Your task to perform on an android device: manage bookmarks in the chrome app Image 0: 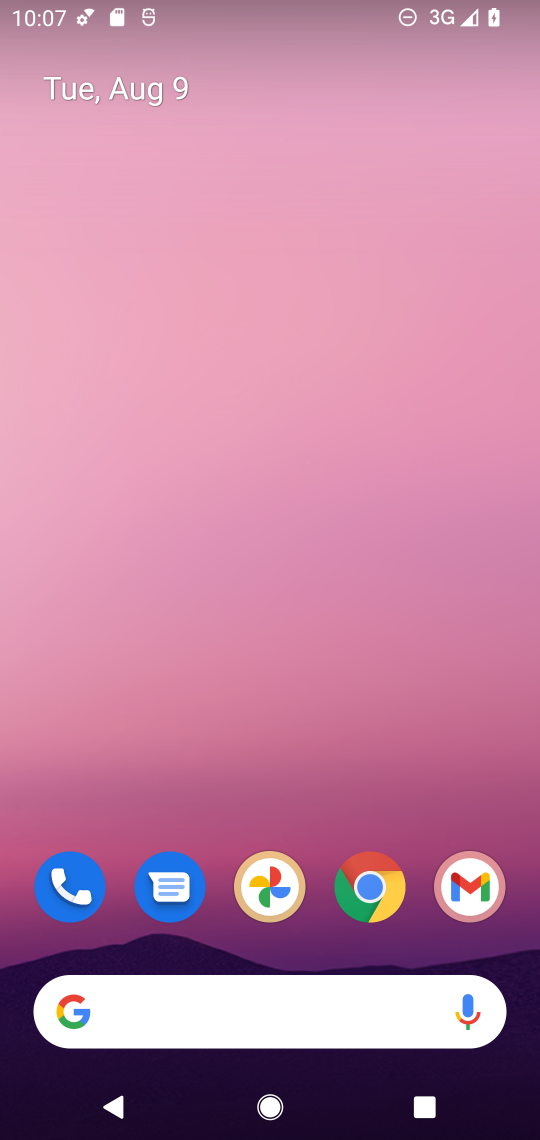
Step 0: click (386, 874)
Your task to perform on an android device: manage bookmarks in the chrome app Image 1: 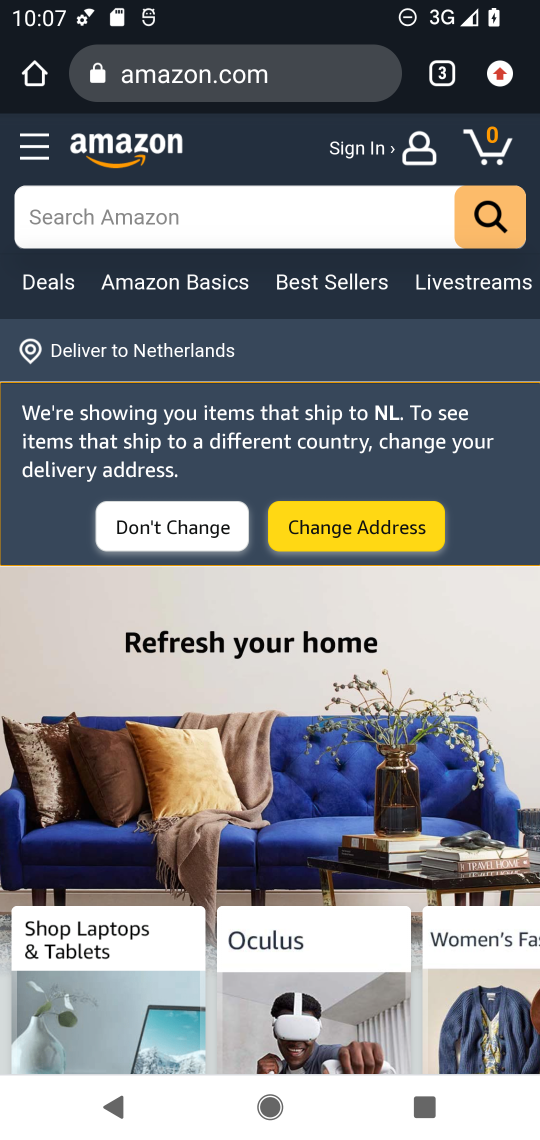
Step 1: click (503, 81)
Your task to perform on an android device: manage bookmarks in the chrome app Image 2: 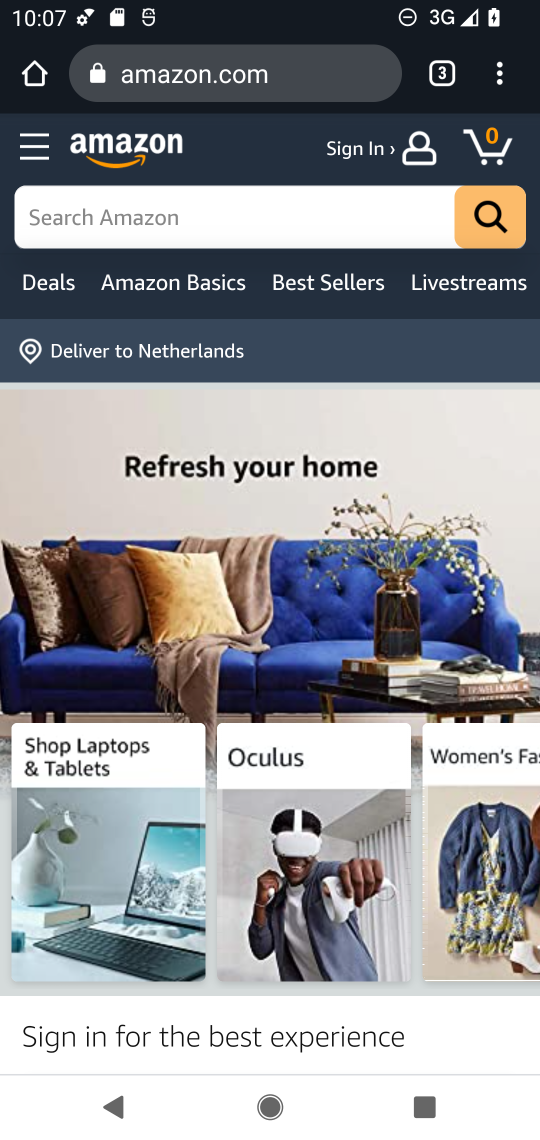
Step 2: click (481, 73)
Your task to perform on an android device: manage bookmarks in the chrome app Image 3: 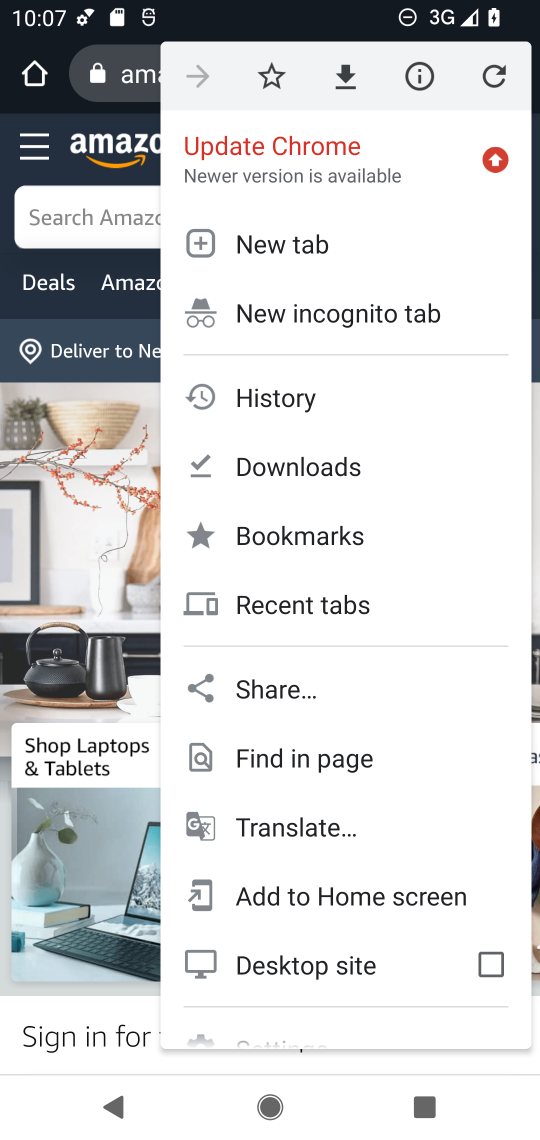
Step 3: click (340, 549)
Your task to perform on an android device: manage bookmarks in the chrome app Image 4: 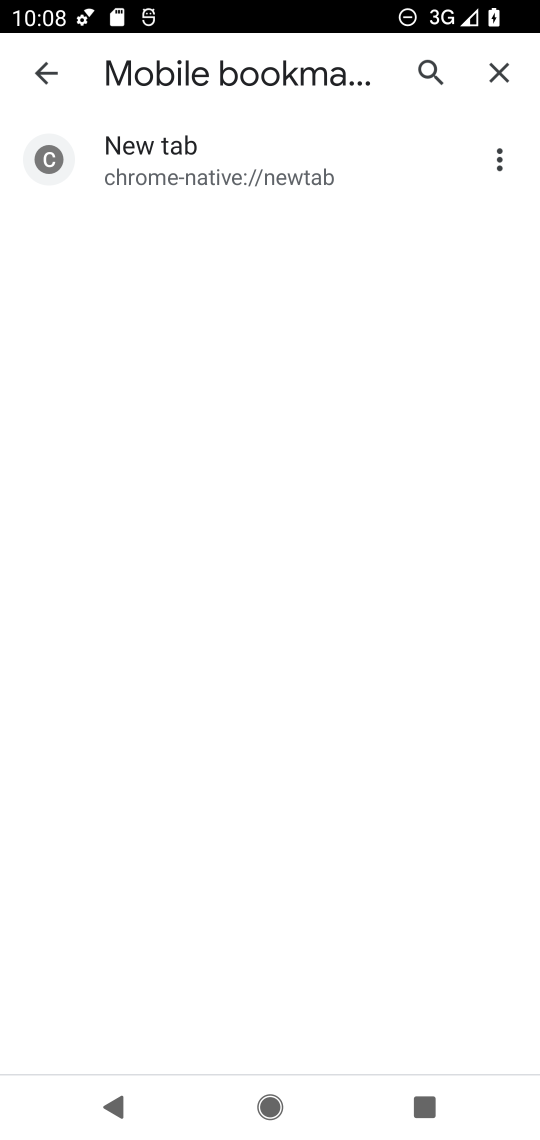
Step 4: task complete